Your task to perform on an android device: Search for Italian restaurants on Maps Image 0: 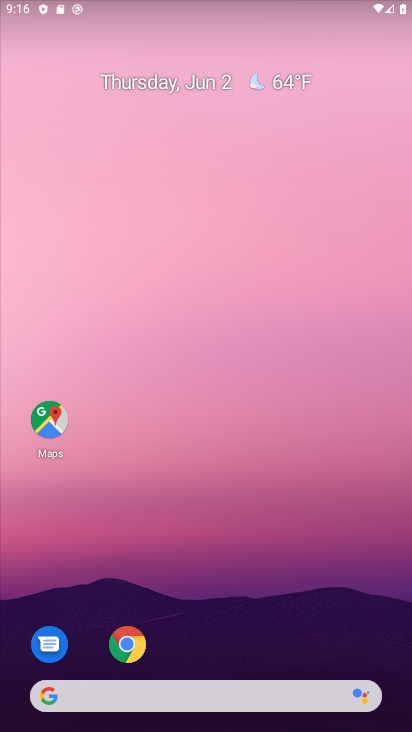
Step 0: press home button
Your task to perform on an android device: Search for Italian restaurants on Maps Image 1: 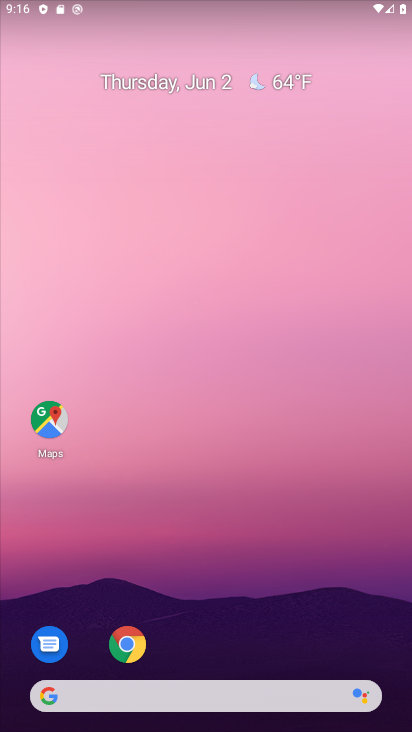
Step 1: click (62, 432)
Your task to perform on an android device: Search for Italian restaurants on Maps Image 2: 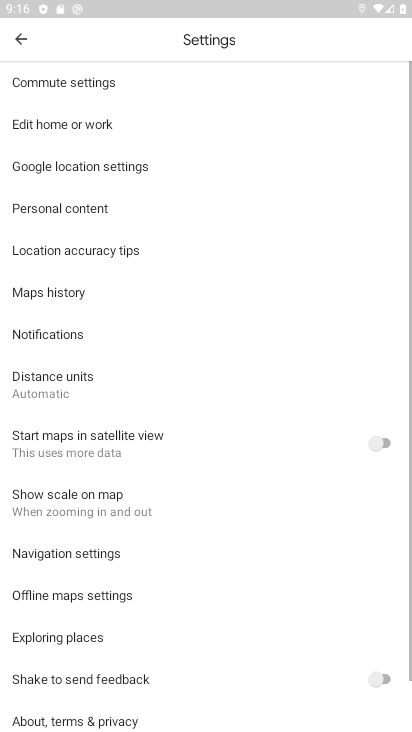
Step 2: click (18, 37)
Your task to perform on an android device: Search for Italian restaurants on Maps Image 3: 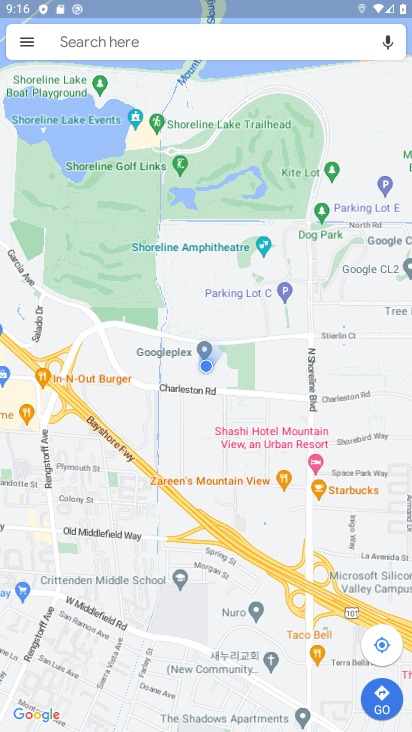
Step 3: click (189, 38)
Your task to perform on an android device: Search for Italian restaurants on Maps Image 4: 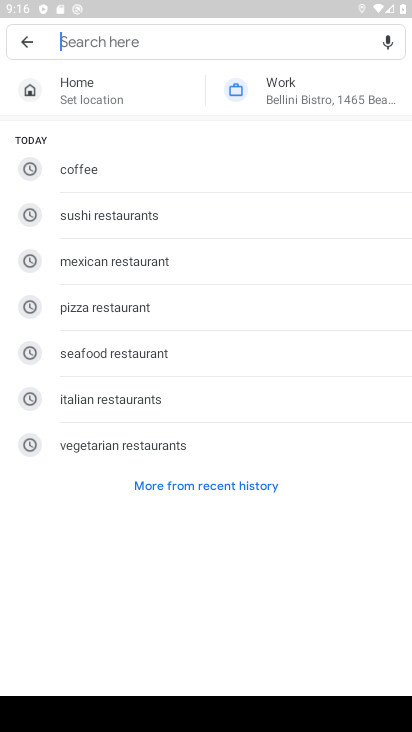
Step 4: type "Italian restaurants"
Your task to perform on an android device: Search for Italian restaurants on Maps Image 5: 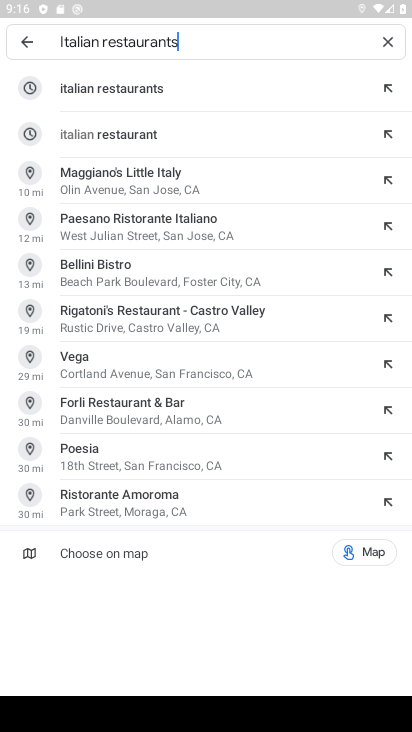
Step 5: click (299, 96)
Your task to perform on an android device: Search for Italian restaurants on Maps Image 6: 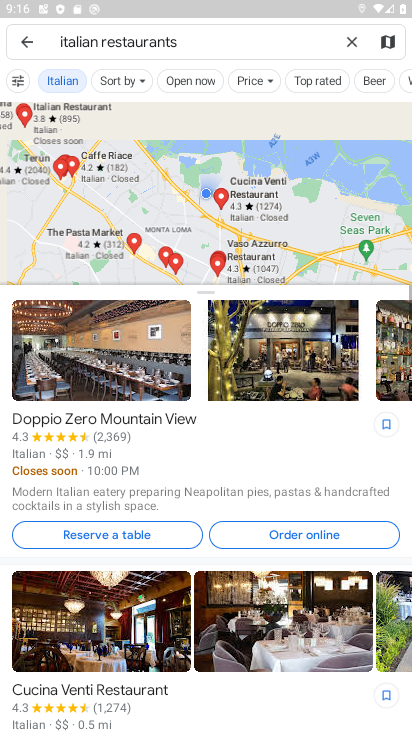
Step 6: task complete